Your task to perform on an android device: show emergency info Image 0: 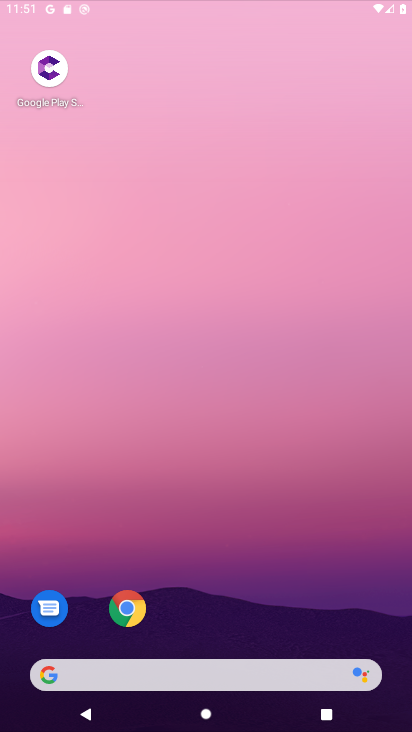
Step 0: press home button
Your task to perform on an android device: show emergency info Image 1: 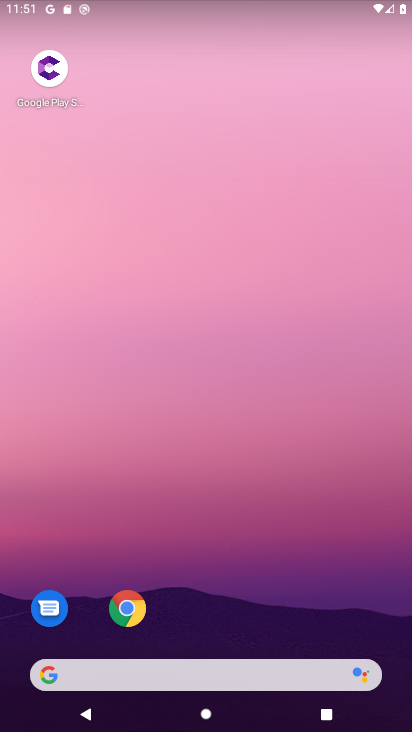
Step 1: drag from (254, 536) to (139, 61)
Your task to perform on an android device: show emergency info Image 2: 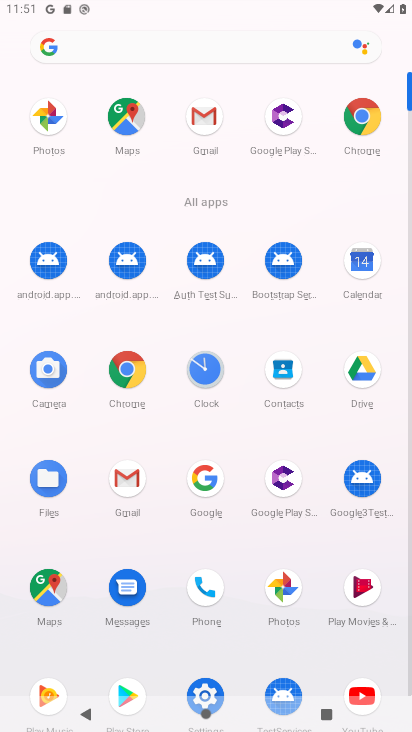
Step 2: click (206, 688)
Your task to perform on an android device: show emergency info Image 3: 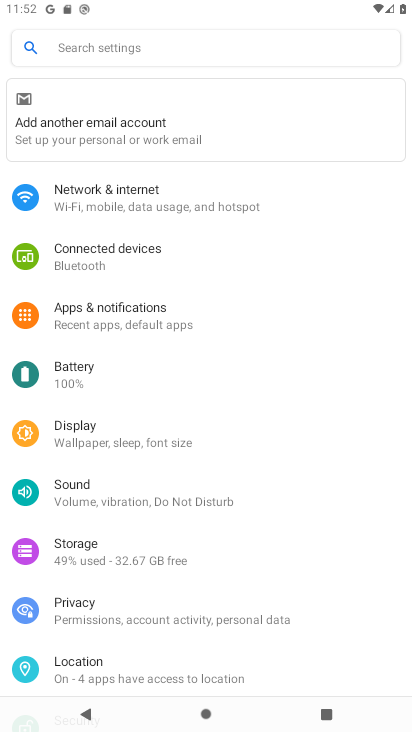
Step 3: drag from (227, 586) to (226, 90)
Your task to perform on an android device: show emergency info Image 4: 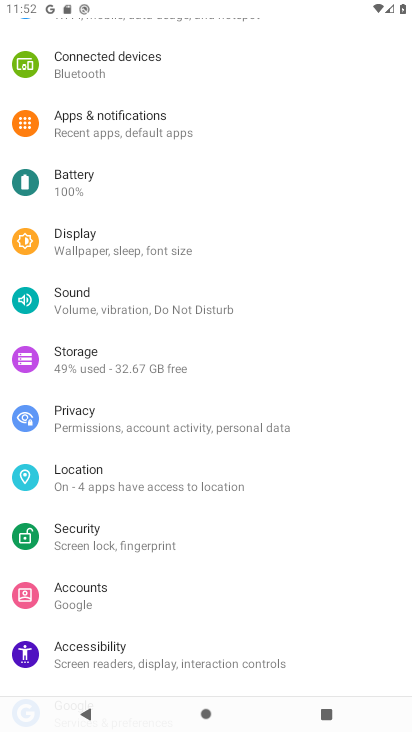
Step 4: drag from (262, 598) to (239, 231)
Your task to perform on an android device: show emergency info Image 5: 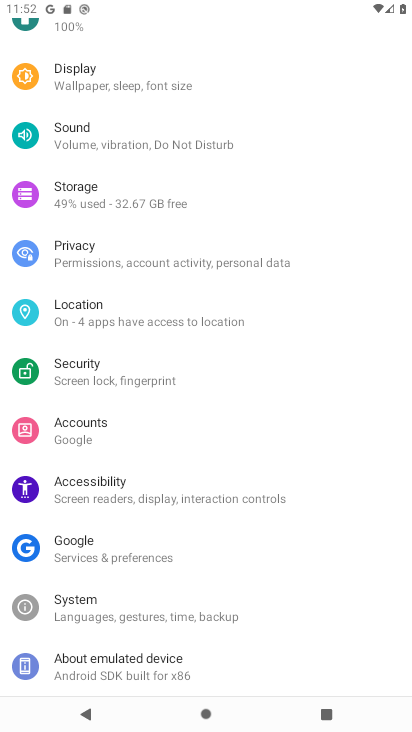
Step 5: click (131, 658)
Your task to perform on an android device: show emergency info Image 6: 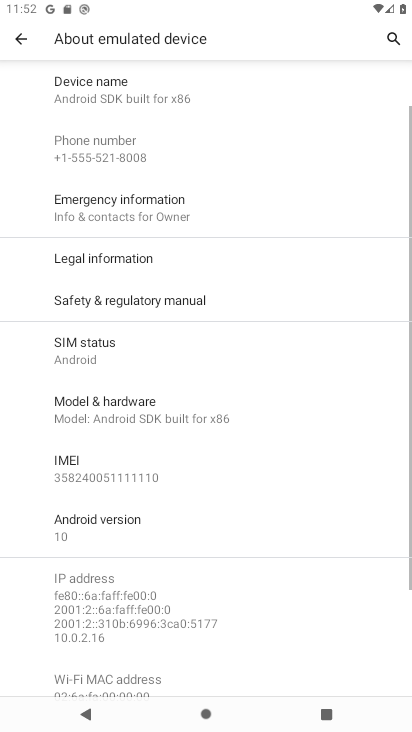
Step 6: click (107, 199)
Your task to perform on an android device: show emergency info Image 7: 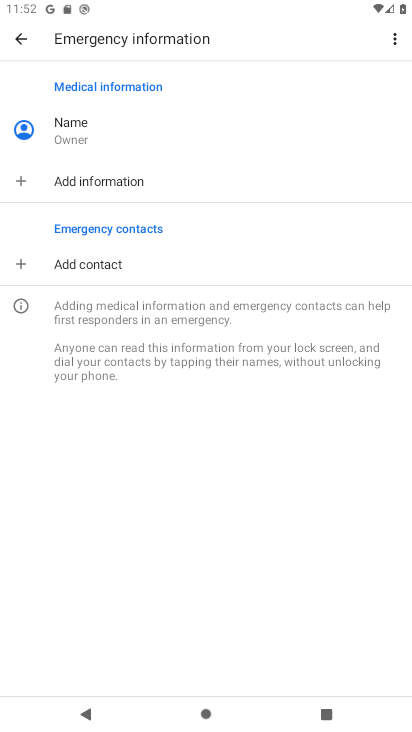
Step 7: task complete